Your task to perform on an android device: delete browsing data in the chrome app Image 0: 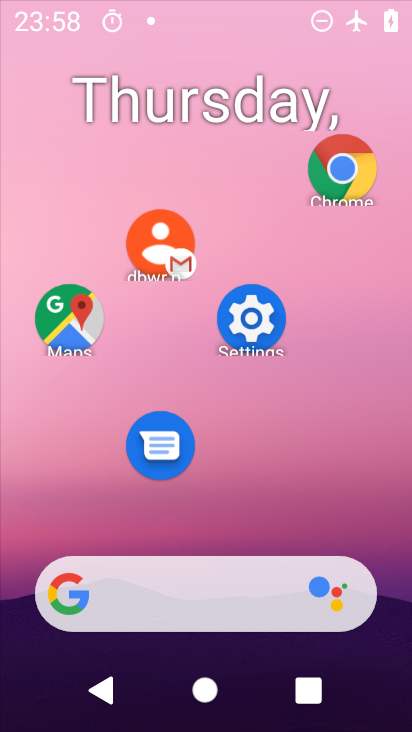
Step 0: click (203, 196)
Your task to perform on an android device: delete browsing data in the chrome app Image 1: 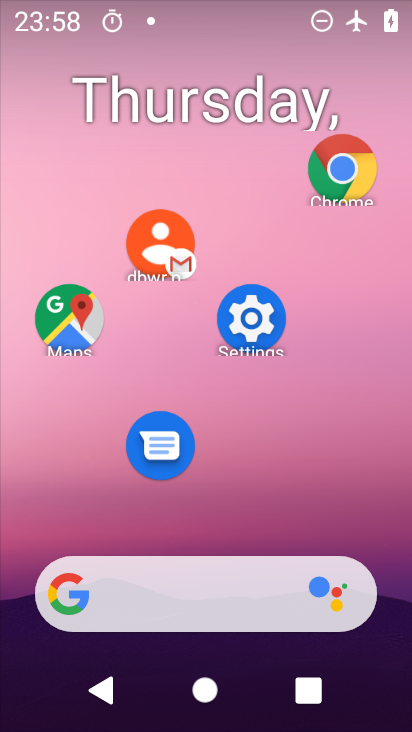
Step 1: click (251, 312)
Your task to perform on an android device: delete browsing data in the chrome app Image 2: 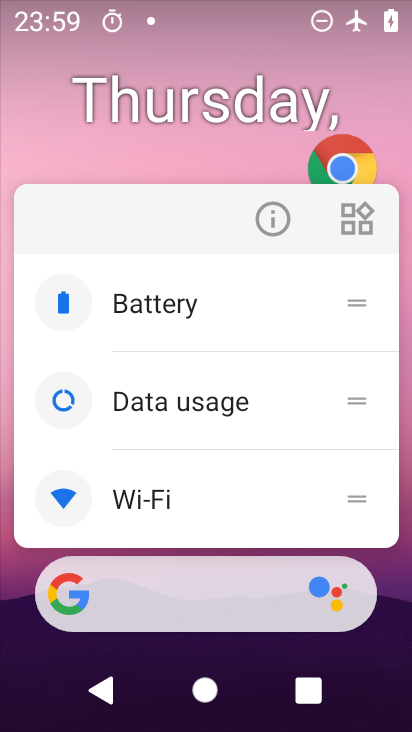
Step 2: click (336, 161)
Your task to perform on an android device: delete browsing data in the chrome app Image 3: 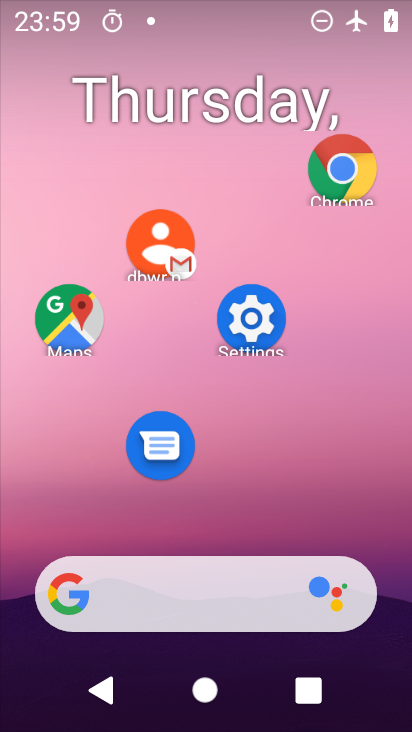
Step 3: drag from (224, 522) to (220, 268)
Your task to perform on an android device: delete browsing data in the chrome app Image 4: 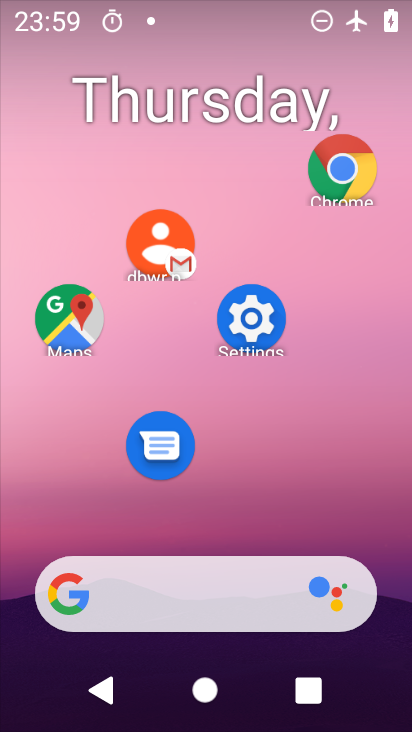
Step 4: click (353, 171)
Your task to perform on an android device: delete browsing data in the chrome app Image 5: 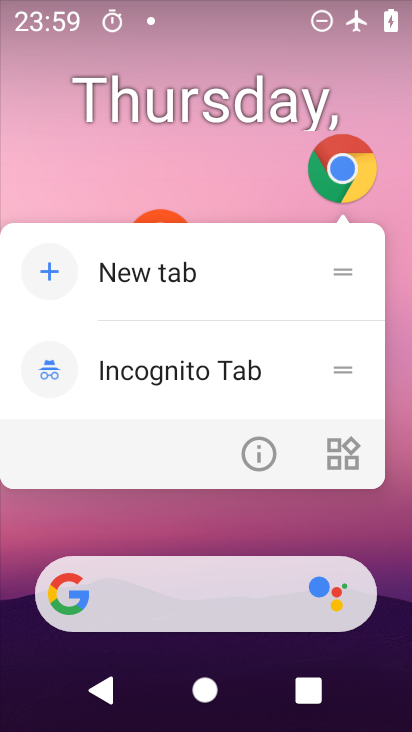
Step 5: click (268, 452)
Your task to perform on an android device: delete browsing data in the chrome app Image 6: 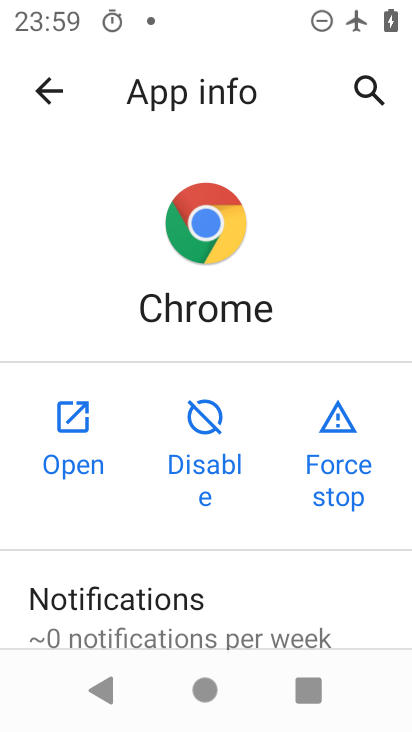
Step 6: click (96, 448)
Your task to perform on an android device: delete browsing data in the chrome app Image 7: 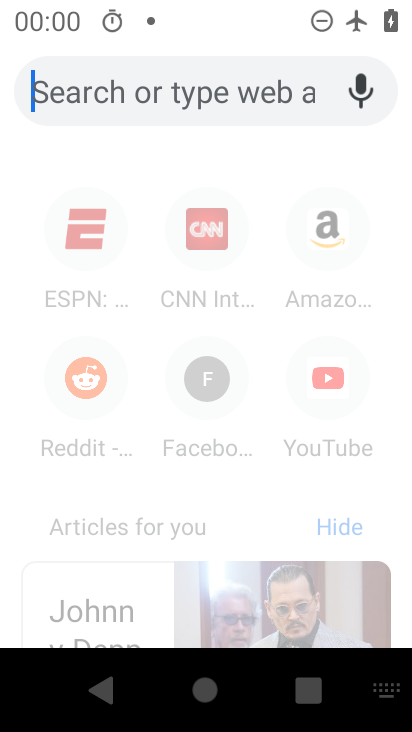
Step 7: drag from (243, 230) to (327, 416)
Your task to perform on an android device: delete browsing data in the chrome app Image 8: 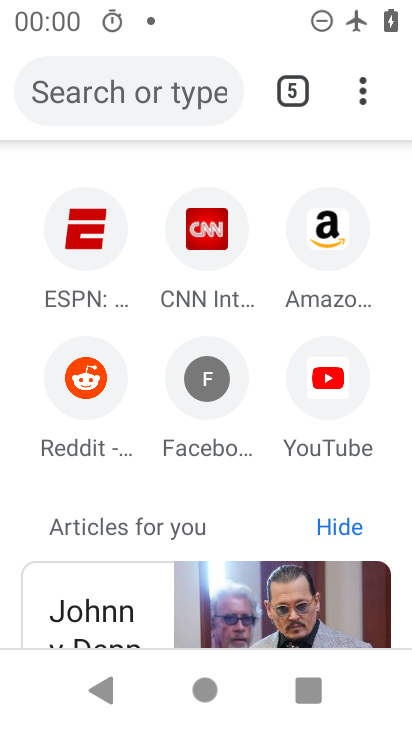
Step 8: click (372, 81)
Your task to perform on an android device: delete browsing data in the chrome app Image 9: 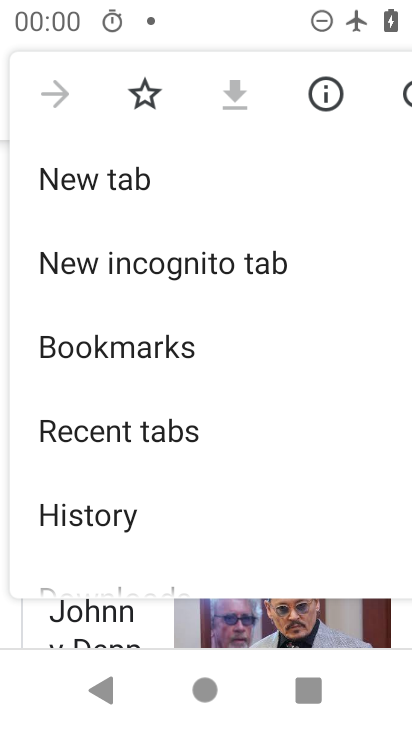
Step 9: click (165, 435)
Your task to perform on an android device: delete browsing data in the chrome app Image 10: 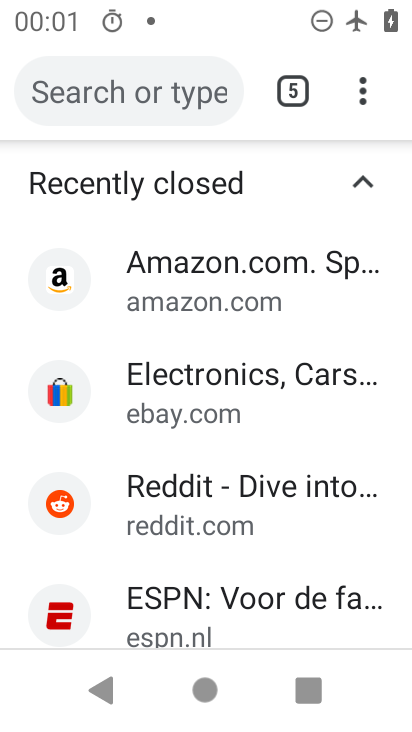
Step 10: drag from (117, 247) to (252, 524)
Your task to perform on an android device: delete browsing data in the chrome app Image 11: 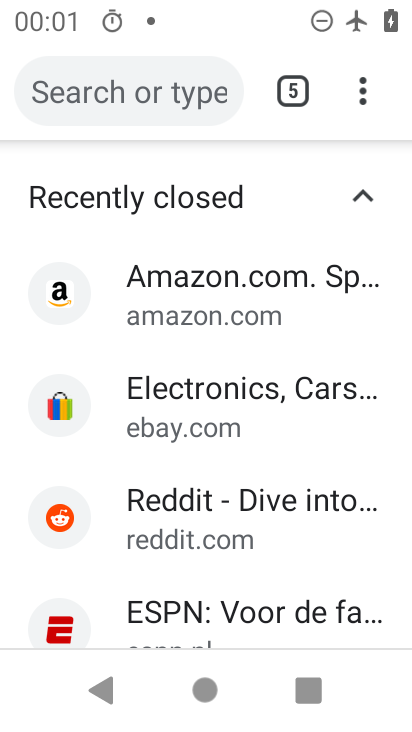
Step 11: click (367, 83)
Your task to perform on an android device: delete browsing data in the chrome app Image 12: 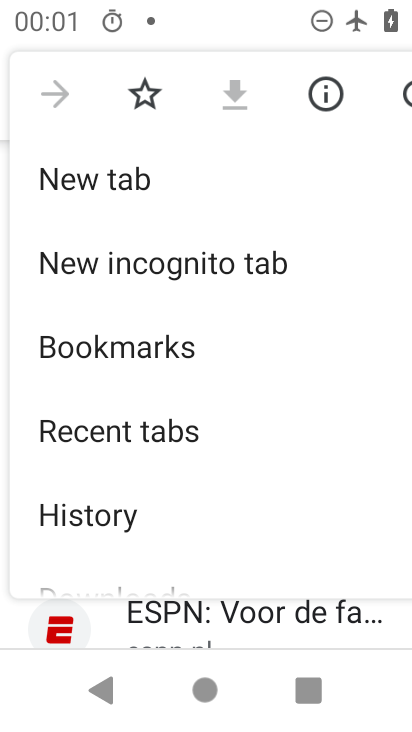
Step 12: click (100, 526)
Your task to perform on an android device: delete browsing data in the chrome app Image 13: 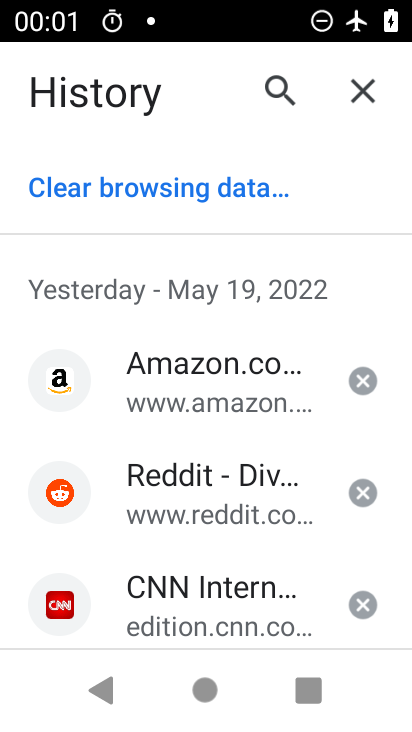
Step 13: click (85, 191)
Your task to perform on an android device: delete browsing data in the chrome app Image 14: 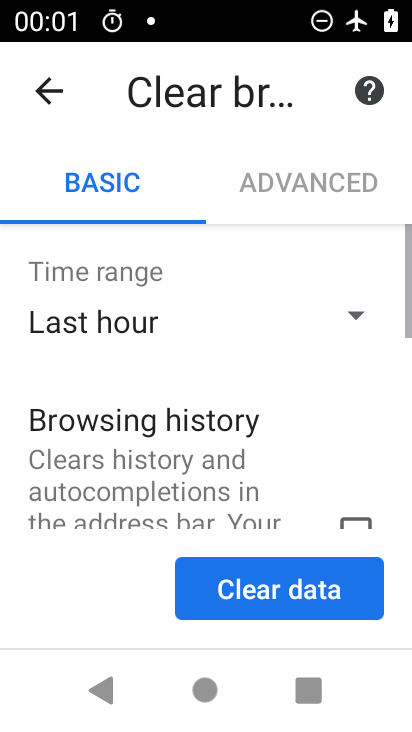
Step 14: click (340, 505)
Your task to perform on an android device: delete browsing data in the chrome app Image 15: 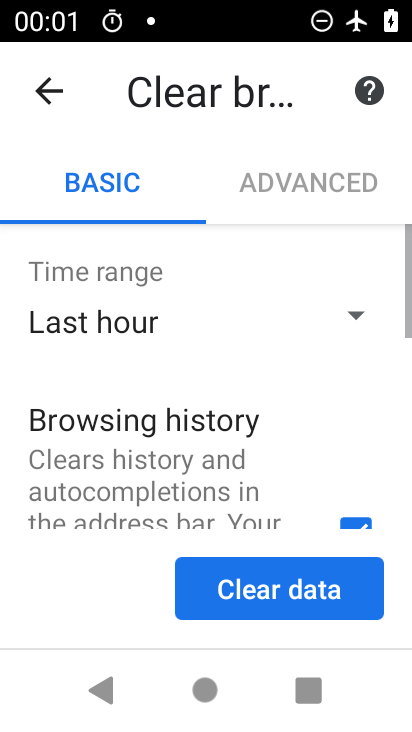
Step 15: click (267, 586)
Your task to perform on an android device: delete browsing data in the chrome app Image 16: 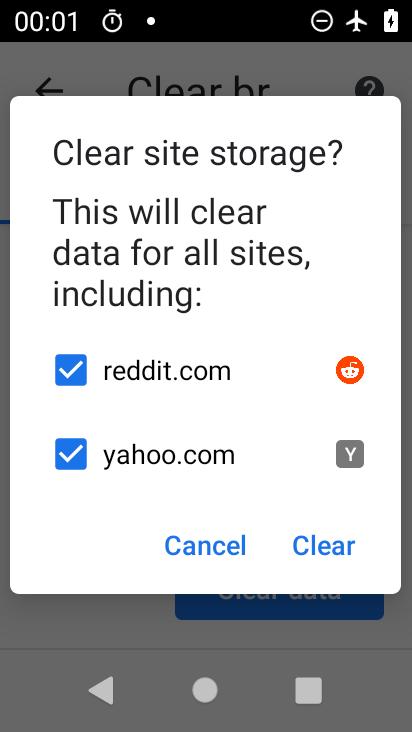
Step 16: click (328, 545)
Your task to perform on an android device: delete browsing data in the chrome app Image 17: 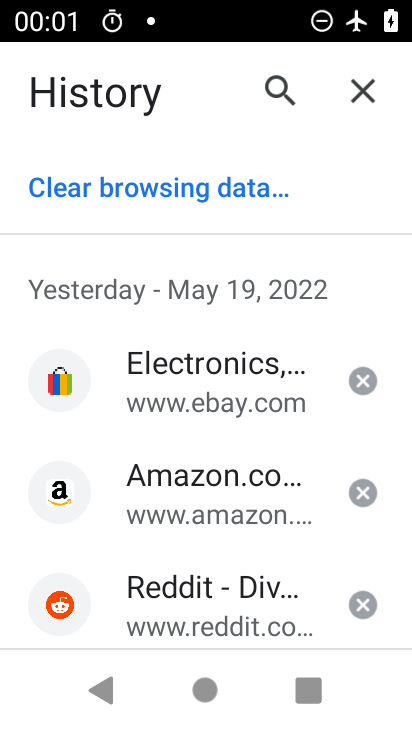
Step 17: drag from (244, 548) to (306, 269)
Your task to perform on an android device: delete browsing data in the chrome app Image 18: 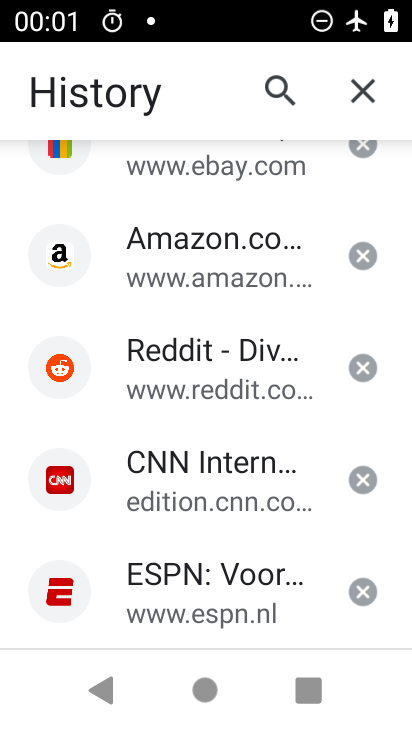
Step 18: drag from (145, 233) to (255, 674)
Your task to perform on an android device: delete browsing data in the chrome app Image 19: 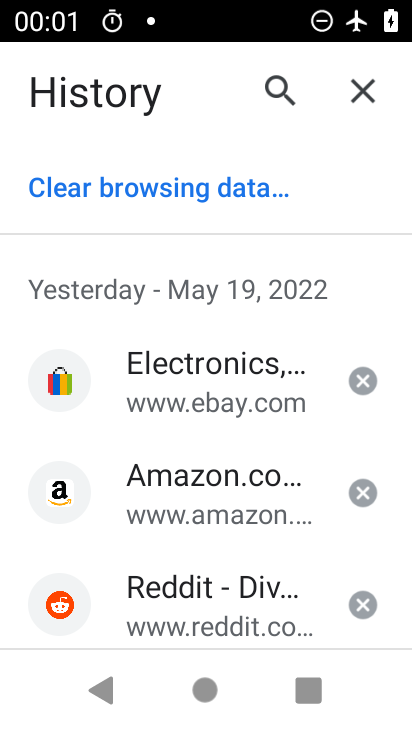
Step 19: click (120, 183)
Your task to perform on an android device: delete browsing data in the chrome app Image 20: 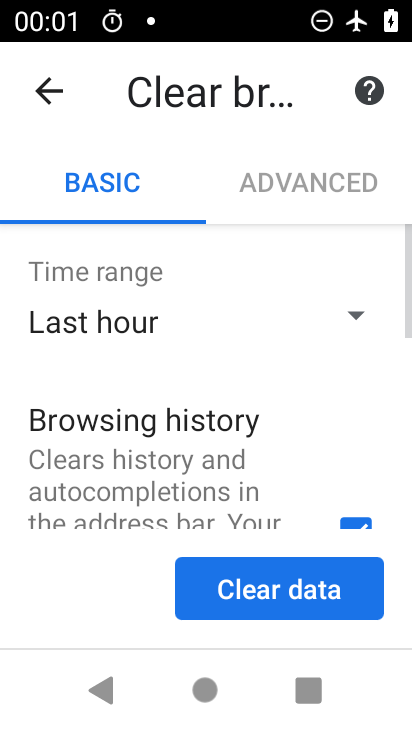
Step 20: click (360, 326)
Your task to perform on an android device: delete browsing data in the chrome app Image 21: 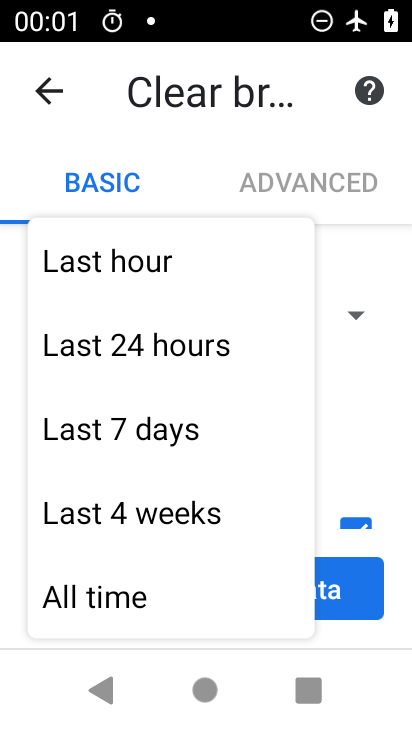
Step 21: click (146, 610)
Your task to perform on an android device: delete browsing data in the chrome app Image 22: 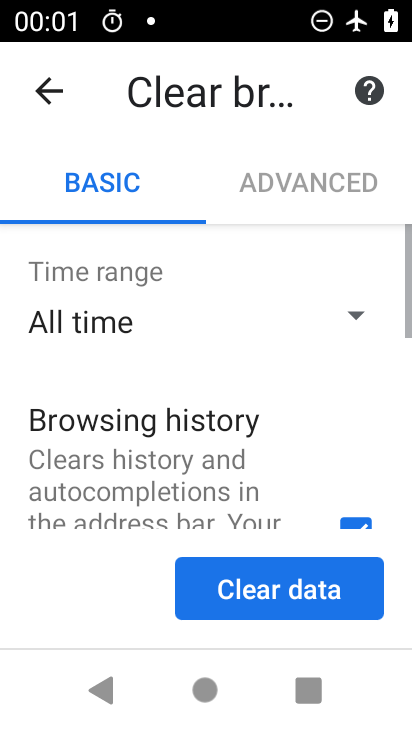
Step 22: click (265, 577)
Your task to perform on an android device: delete browsing data in the chrome app Image 23: 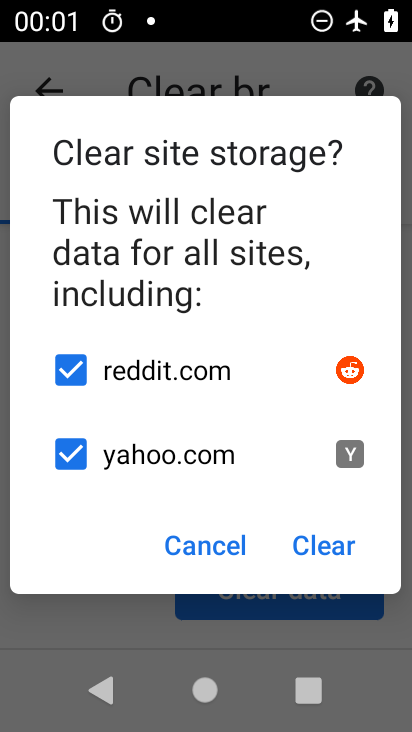
Step 23: task complete